Your task to perform on an android device: View the shopping cart on ebay. Add lenovo thinkpad to the cart on ebay, then select checkout. Image 0: 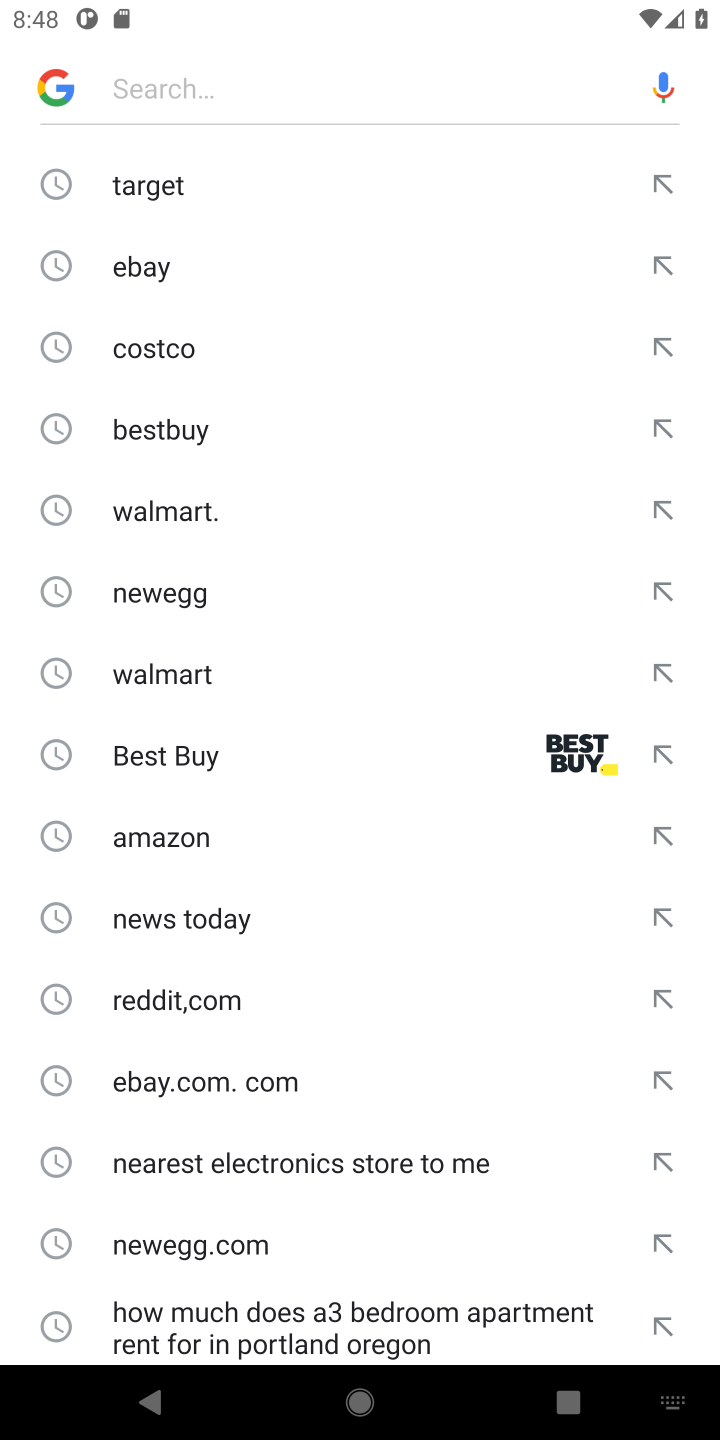
Step 0: press home button
Your task to perform on an android device: View the shopping cart on ebay. Add lenovo thinkpad to the cart on ebay, then select checkout. Image 1: 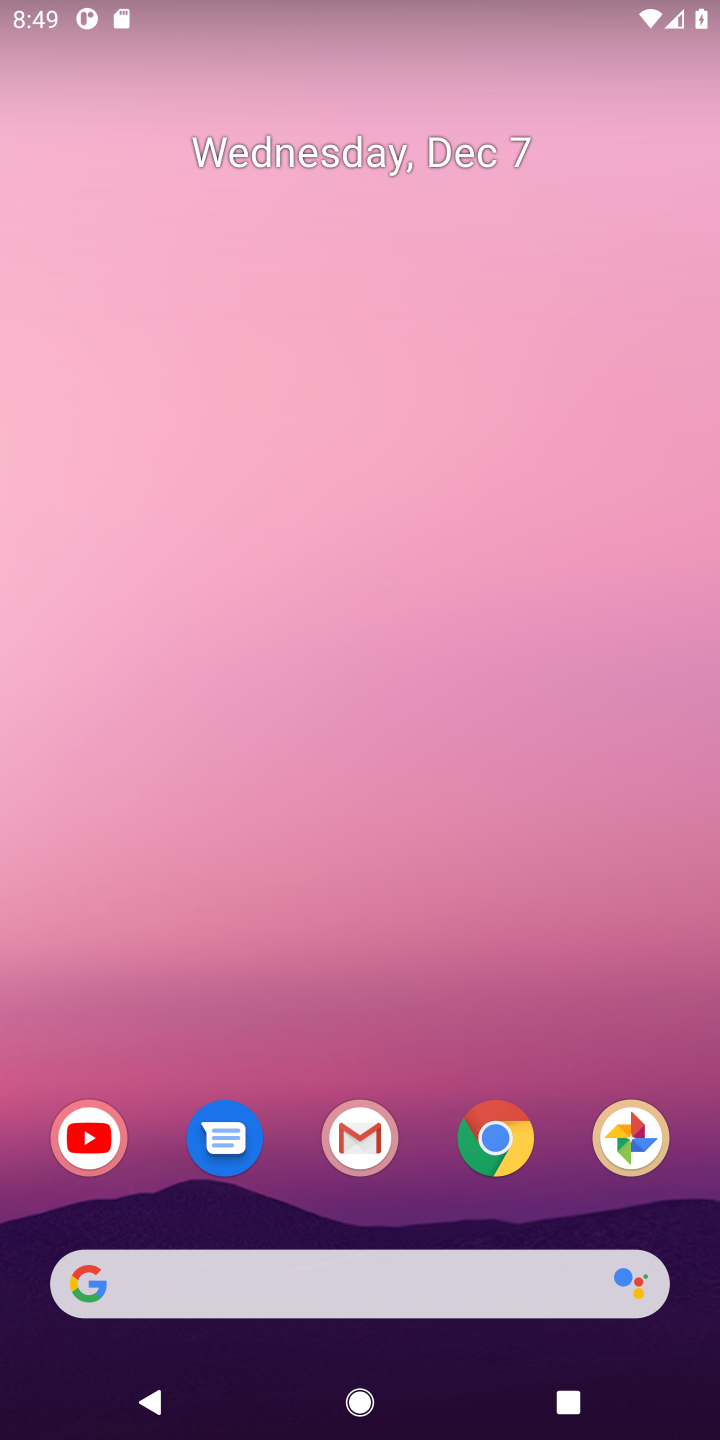
Step 1: click (133, 1291)
Your task to perform on an android device: View the shopping cart on ebay. Add lenovo thinkpad to the cart on ebay, then select checkout. Image 2: 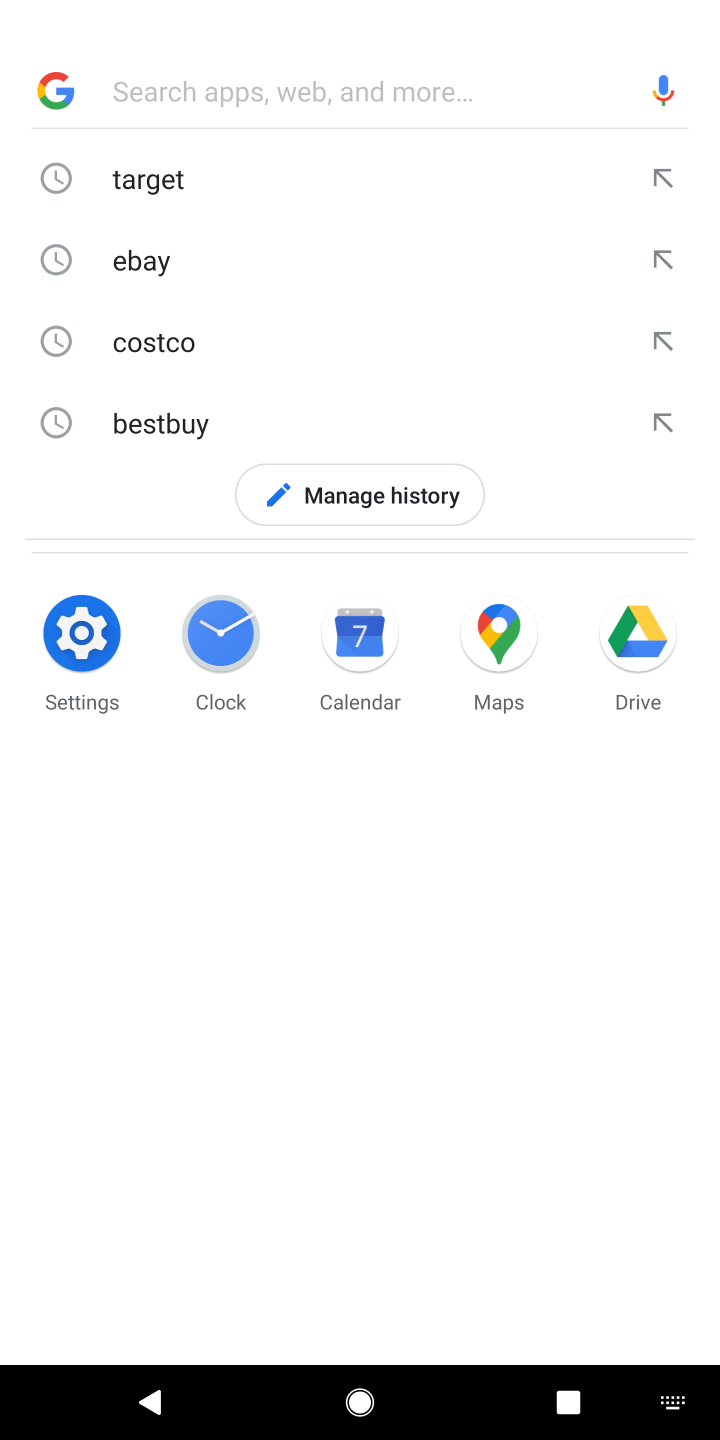
Step 2: press enter
Your task to perform on an android device: View the shopping cart on ebay. Add lenovo thinkpad to the cart on ebay, then select checkout. Image 3: 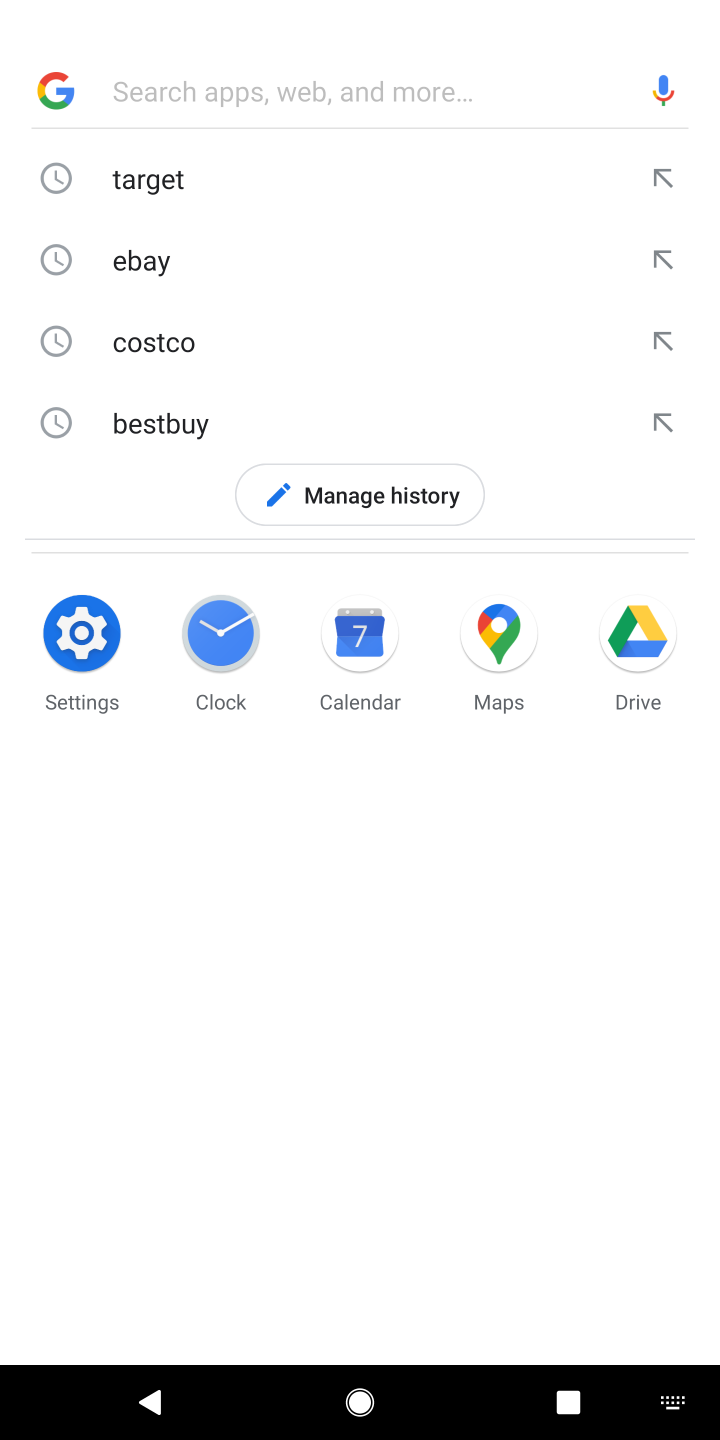
Step 3: type "ebay"
Your task to perform on an android device: View the shopping cart on ebay. Add lenovo thinkpad to the cart on ebay, then select checkout. Image 4: 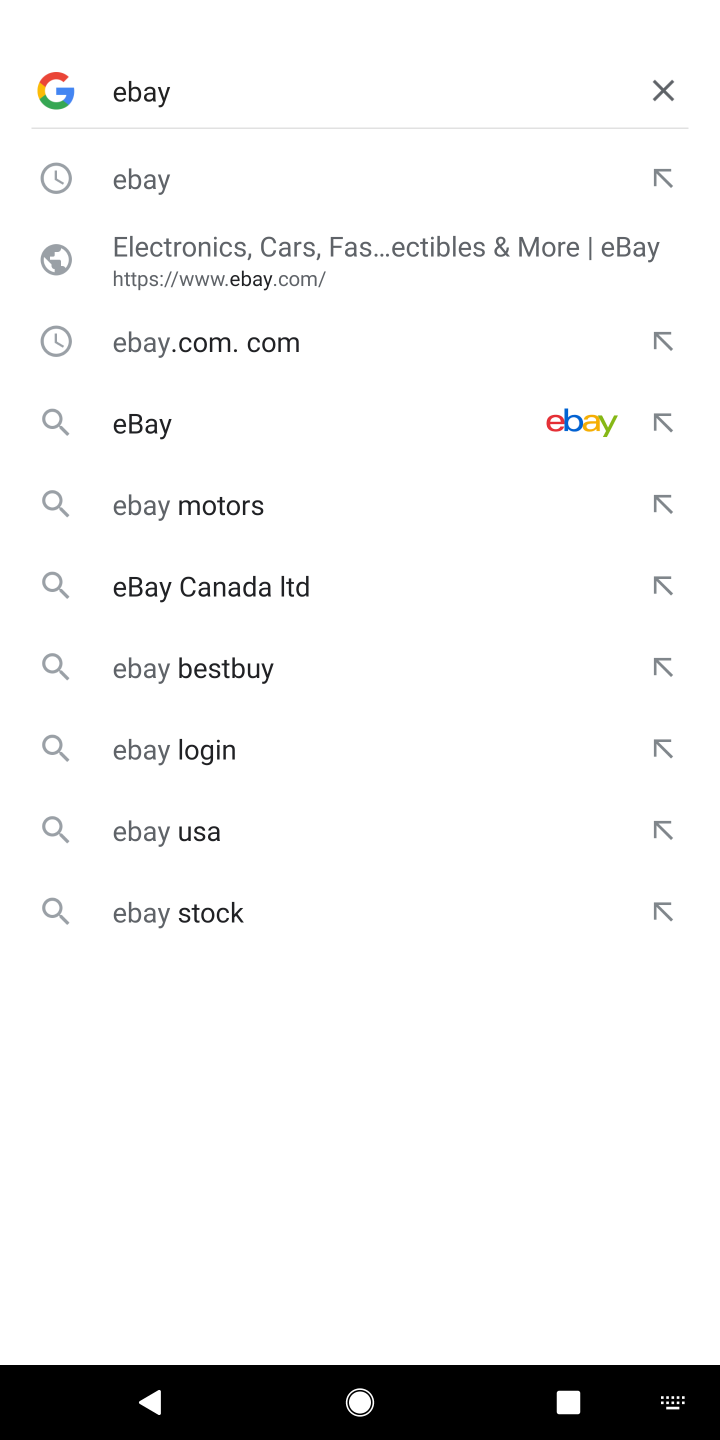
Step 4: press enter
Your task to perform on an android device: View the shopping cart on ebay. Add lenovo thinkpad to the cart on ebay, then select checkout. Image 5: 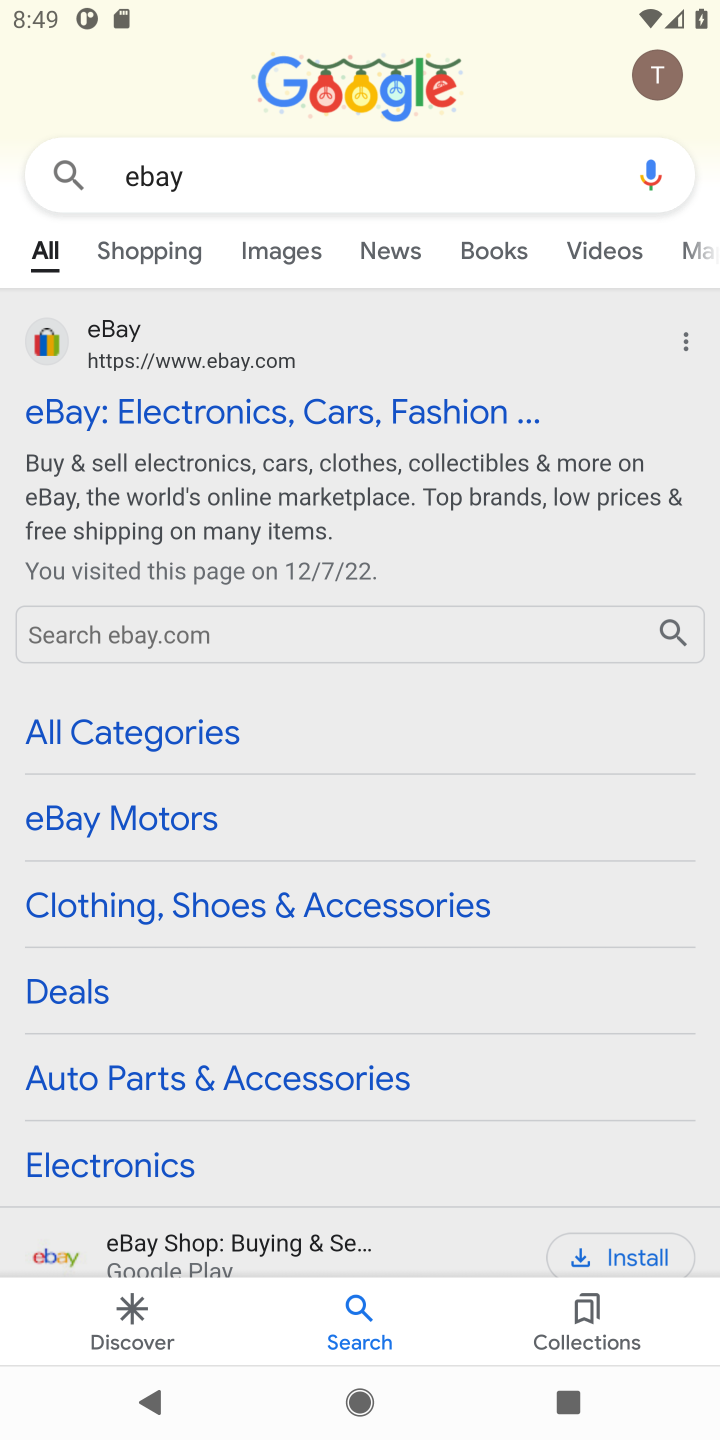
Step 5: click (341, 416)
Your task to perform on an android device: View the shopping cart on ebay. Add lenovo thinkpad to the cart on ebay, then select checkout. Image 6: 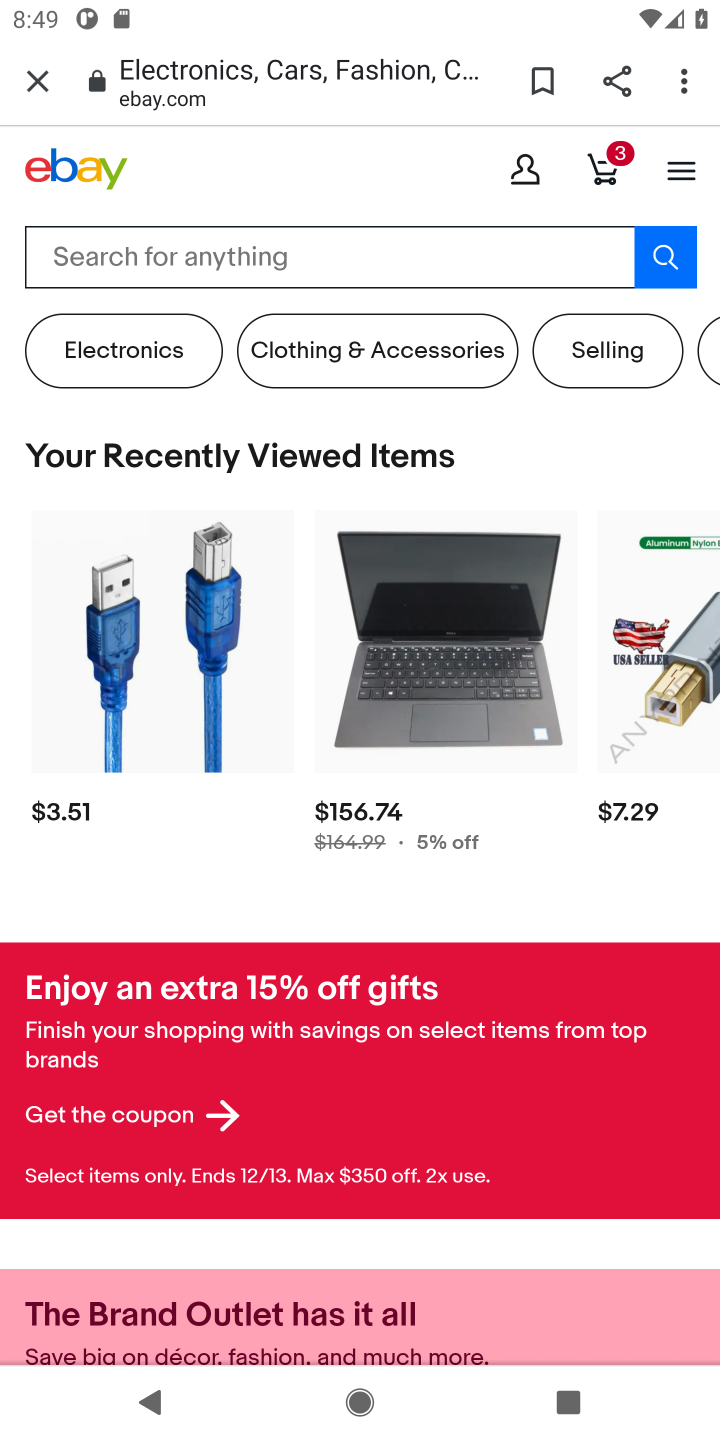
Step 6: click (597, 167)
Your task to perform on an android device: View the shopping cart on ebay. Add lenovo thinkpad to the cart on ebay, then select checkout. Image 7: 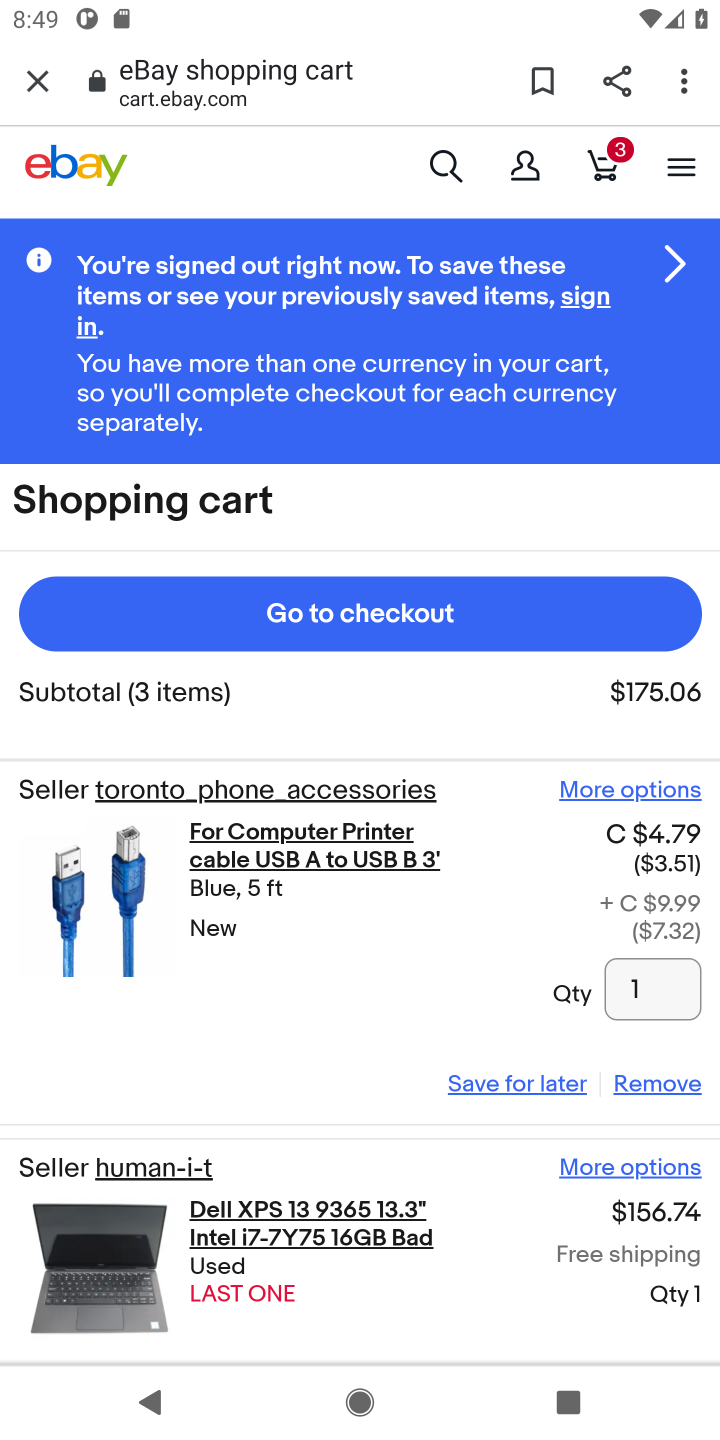
Step 7: click (442, 159)
Your task to perform on an android device: View the shopping cart on ebay. Add lenovo thinkpad to the cart on ebay, then select checkout. Image 8: 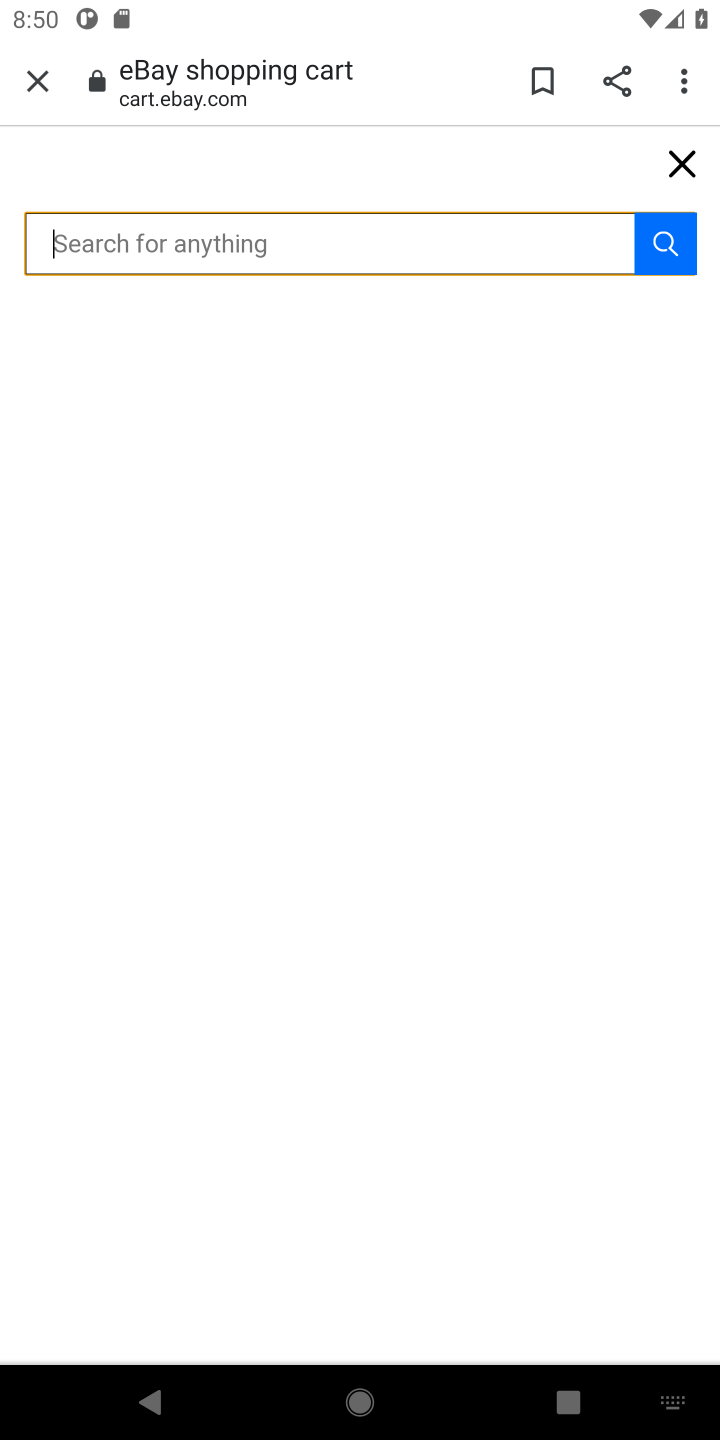
Step 8: type "lenovo thinkpad"
Your task to perform on an android device: View the shopping cart on ebay. Add lenovo thinkpad to the cart on ebay, then select checkout. Image 9: 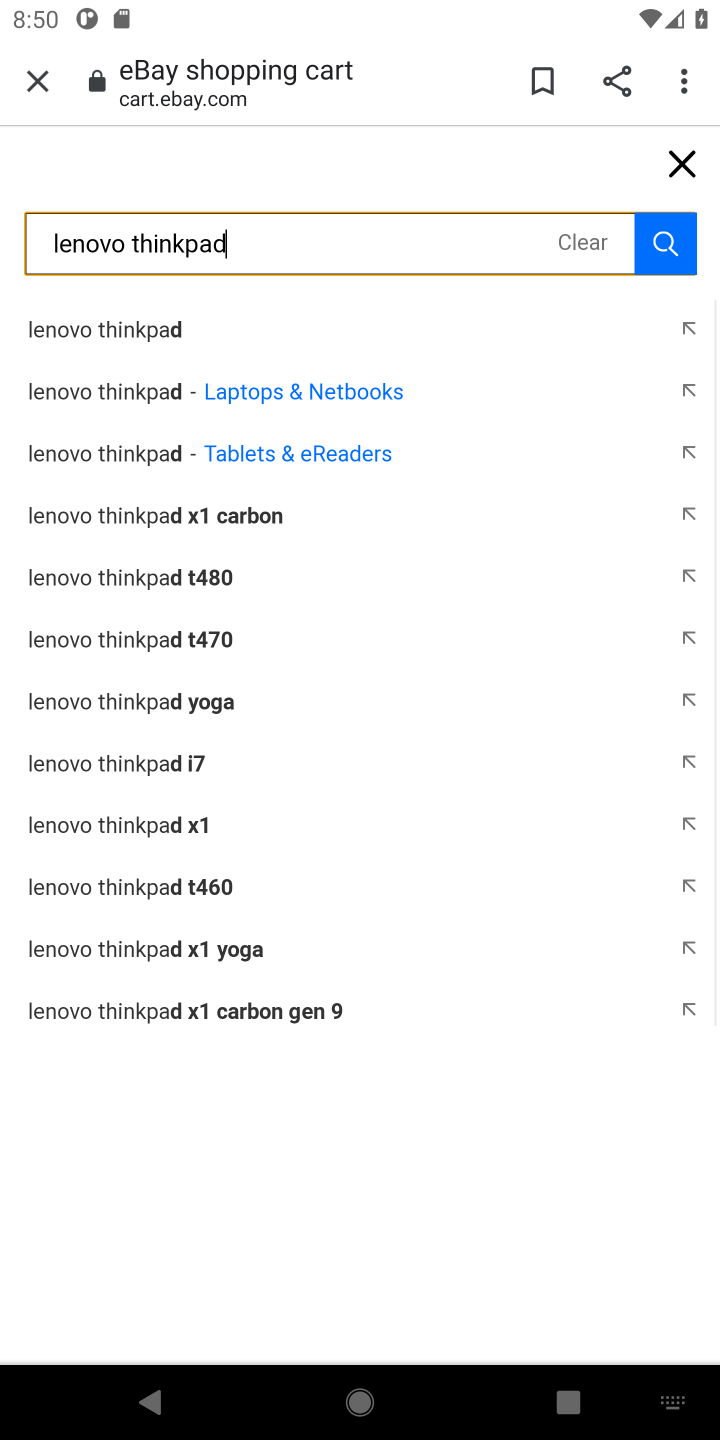
Step 9: press enter
Your task to perform on an android device: View the shopping cart on ebay. Add lenovo thinkpad to the cart on ebay, then select checkout. Image 10: 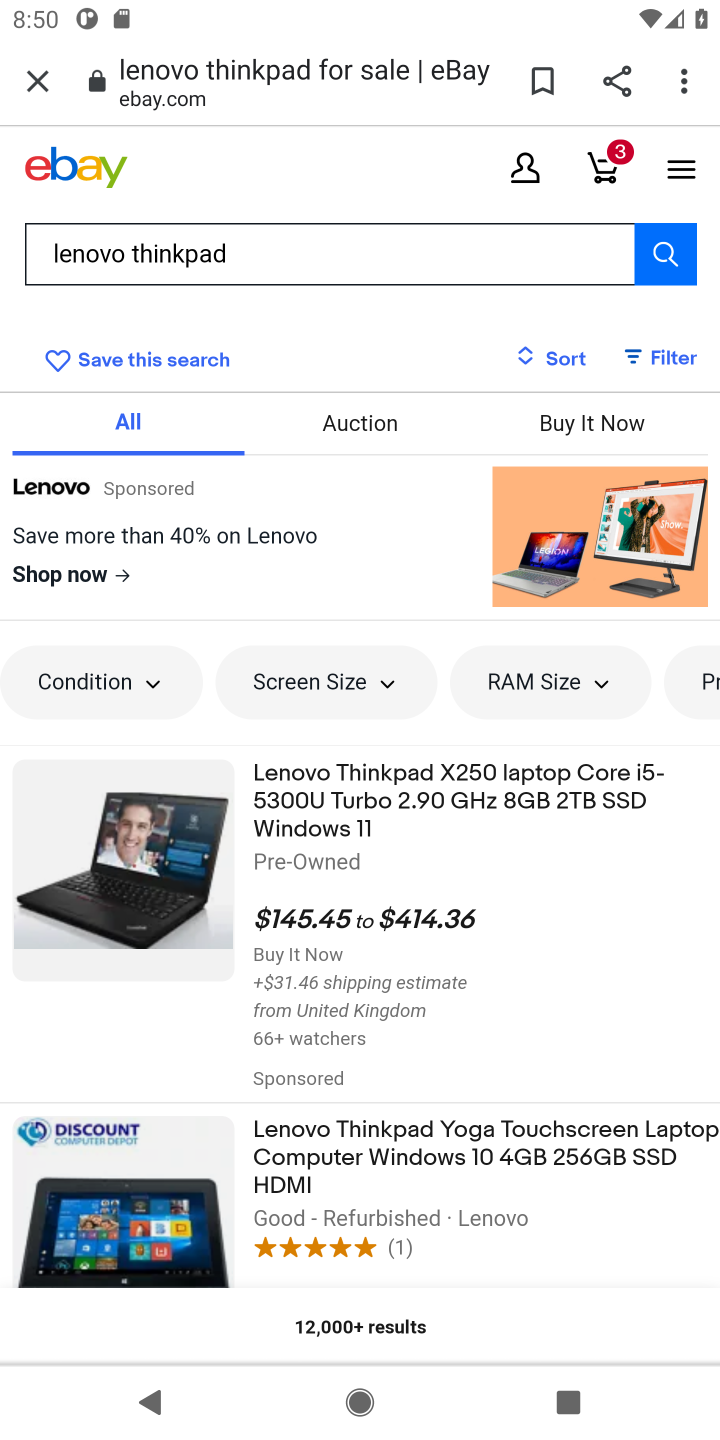
Step 10: click (412, 781)
Your task to perform on an android device: View the shopping cart on ebay. Add lenovo thinkpad to the cart on ebay, then select checkout. Image 11: 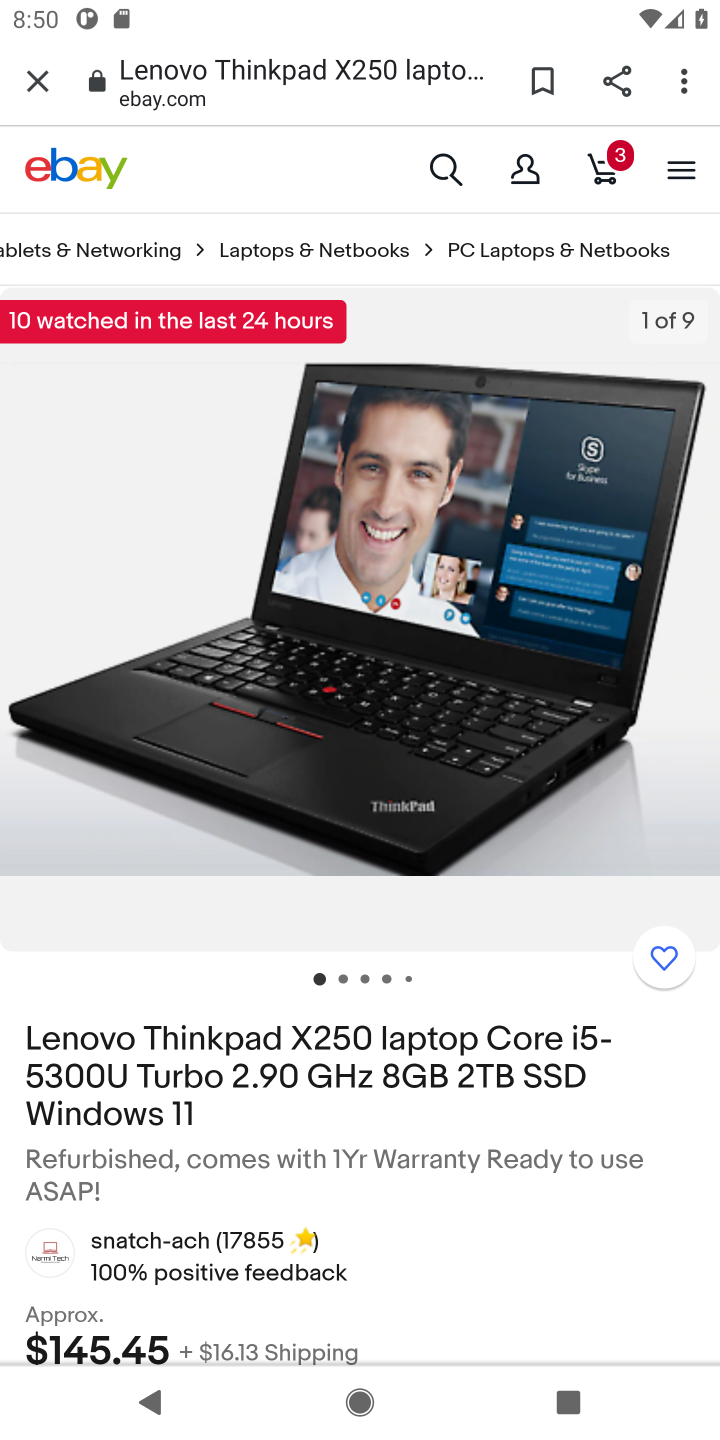
Step 11: drag from (453, 1161) to (453, 479)
Your task to perform on an android device: View the shopping cart on ebay. Add lenovo thinkpad to the cart on ebay, then select checkout. Image 12: 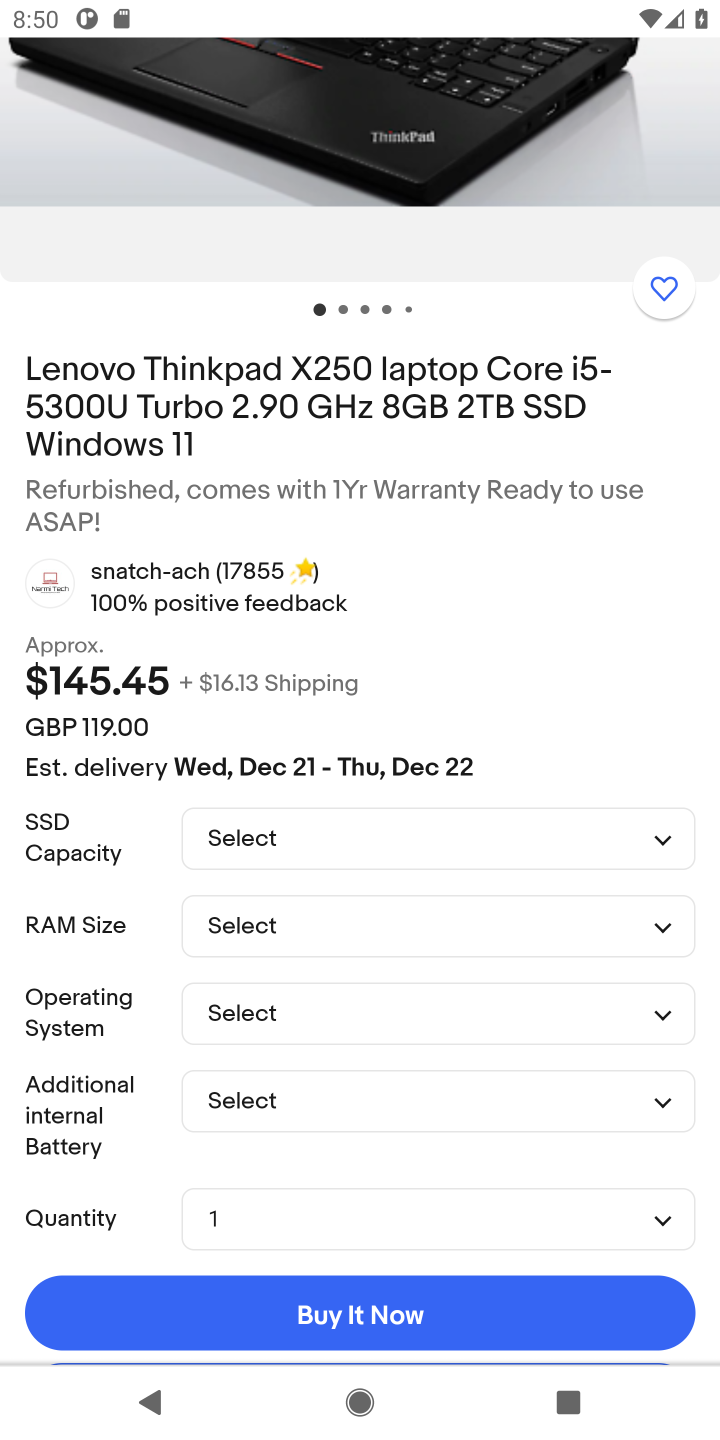
Step 12: drag from (402, 924) to (461, 374)
Your task to perform on an android device: View the shopping cart on ebay. Add lenovo thinkpad to the cart on ebay, then select checkout. Image 13: 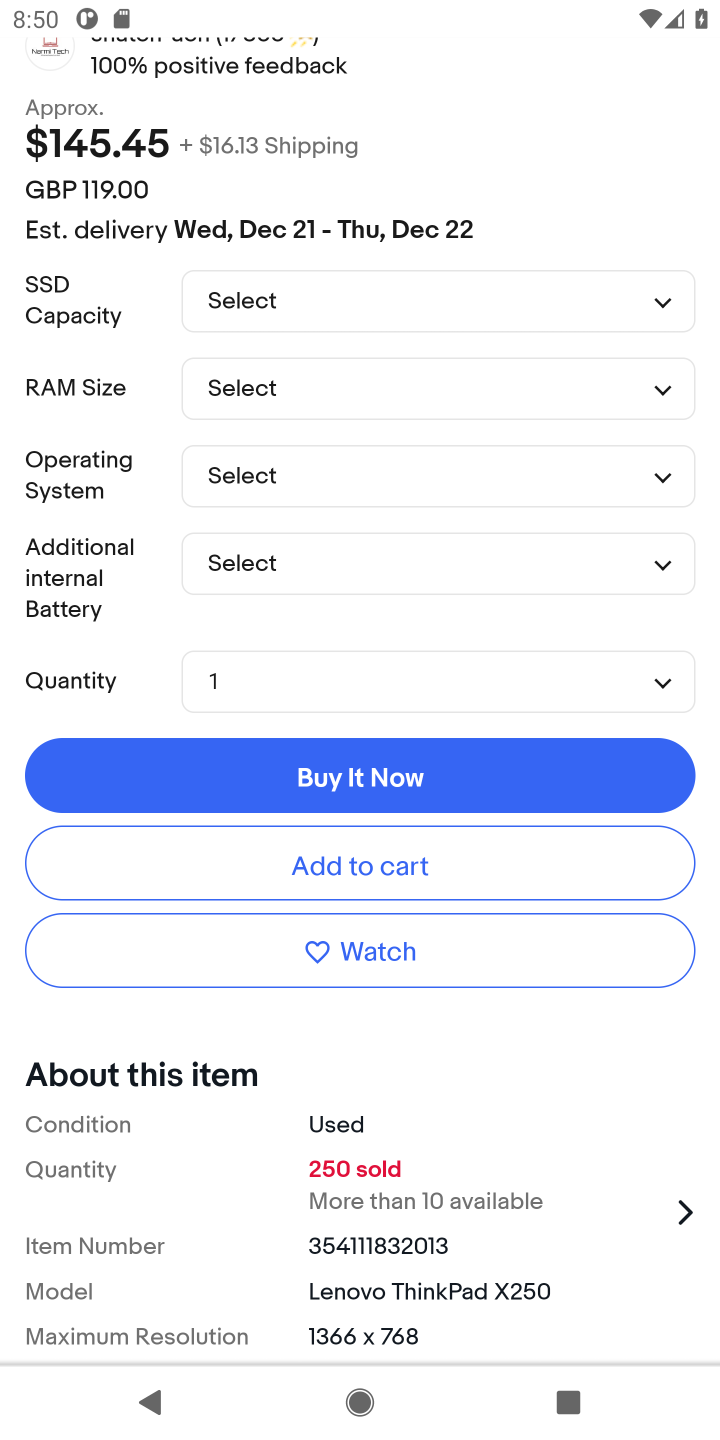
Step 13: click (375, 859)
Your task to perform on an android device: View the shopping cart on ebay. Add lenovo thinkpad to the cart on ebay, then select checkout. Image 14: 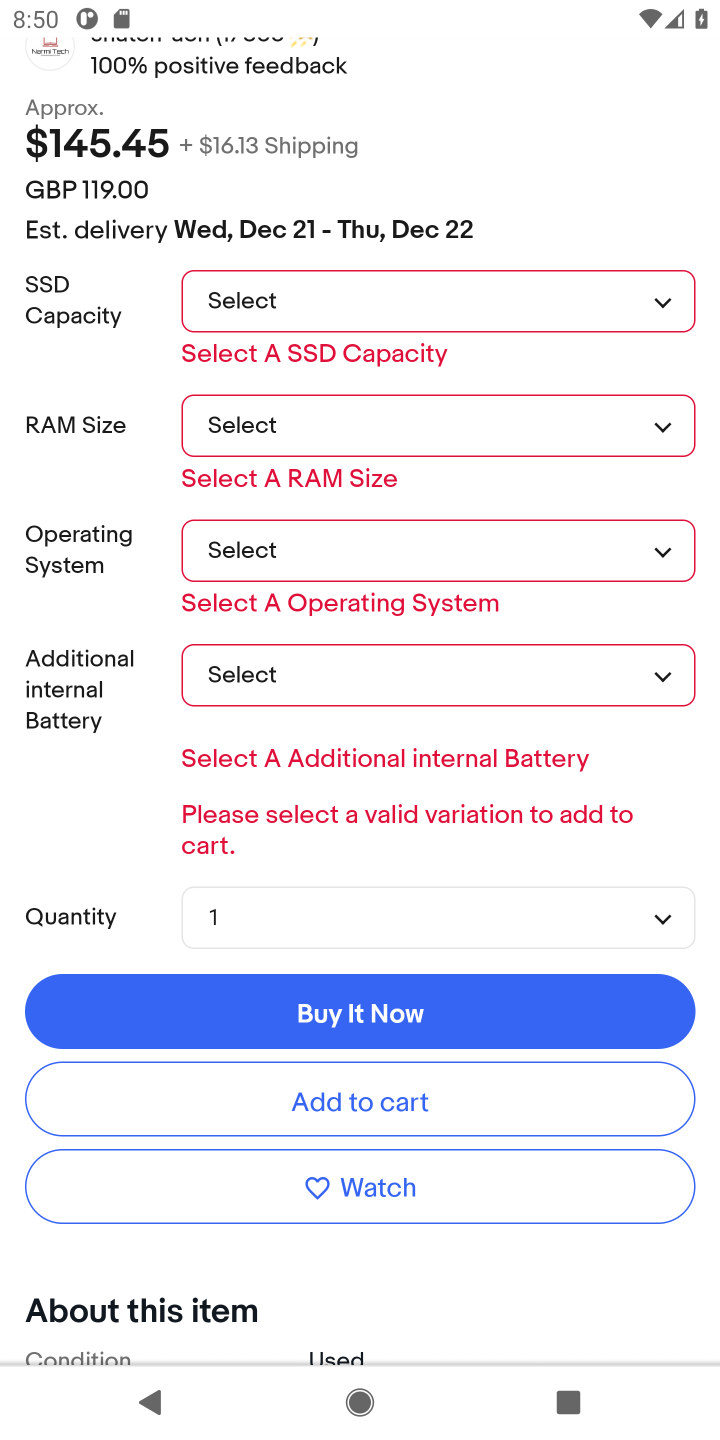
Step 14: click (665, 291)
Your task to perform on an android device: View the shopping cart on ebay. Add lenovo thinkpad to the cart on ebay, then select checkout. Image 15: 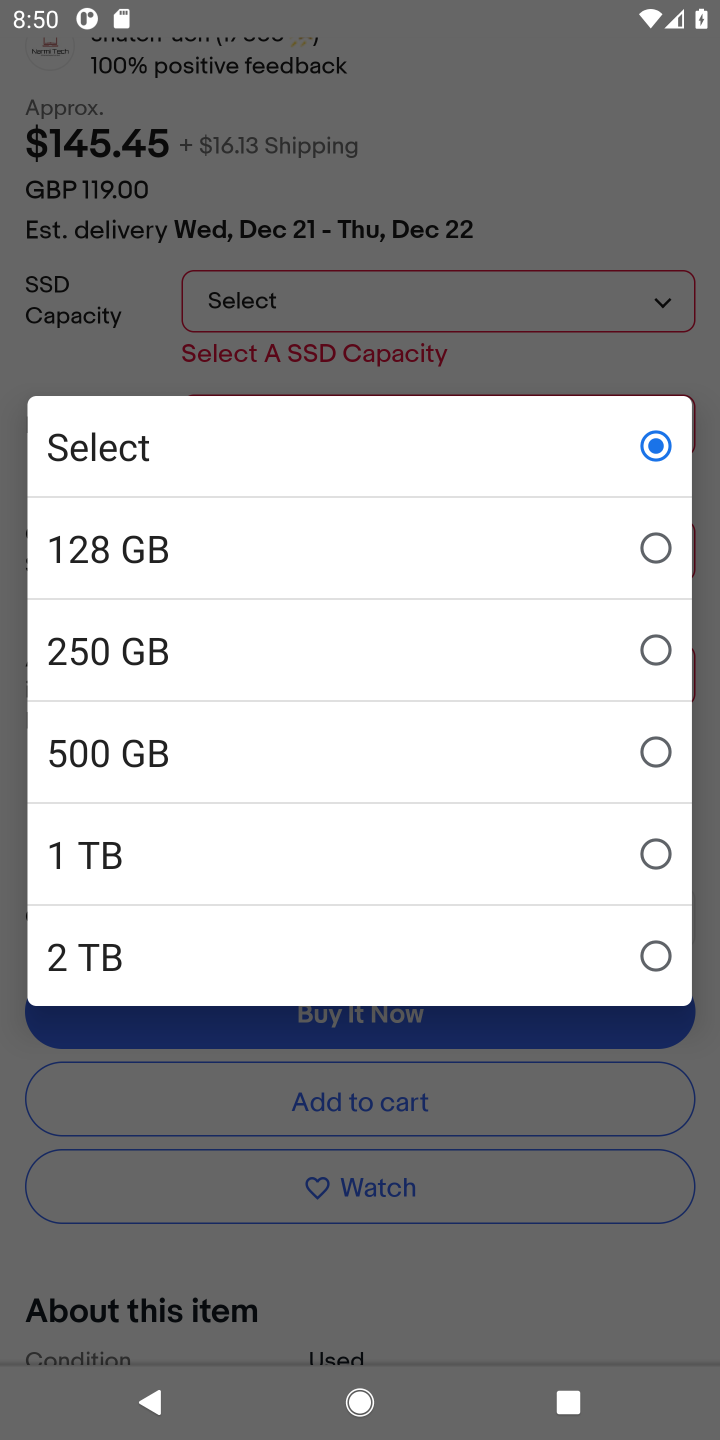
Step 15: click (664, 546)
Your task to perform on an android device: View the shopping cart on ebay. Add lenovo thinkpad to the cart on ebay, then select checkout. Image 16: 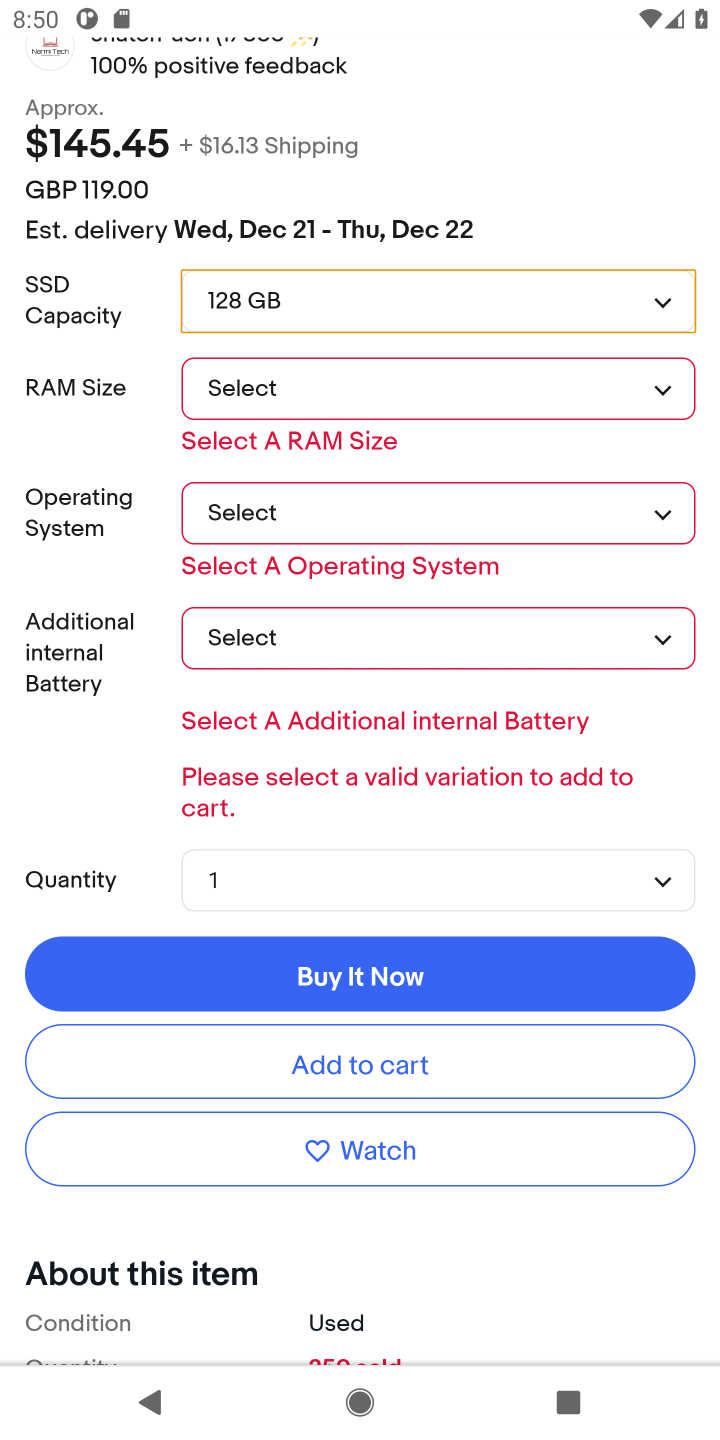
Step 16: click (662, 377)
Your task to perform on an android device: View the shopping cart on ebay. Add lenovo thinkpad to the cart on ebay, then select checkout. Image 17: 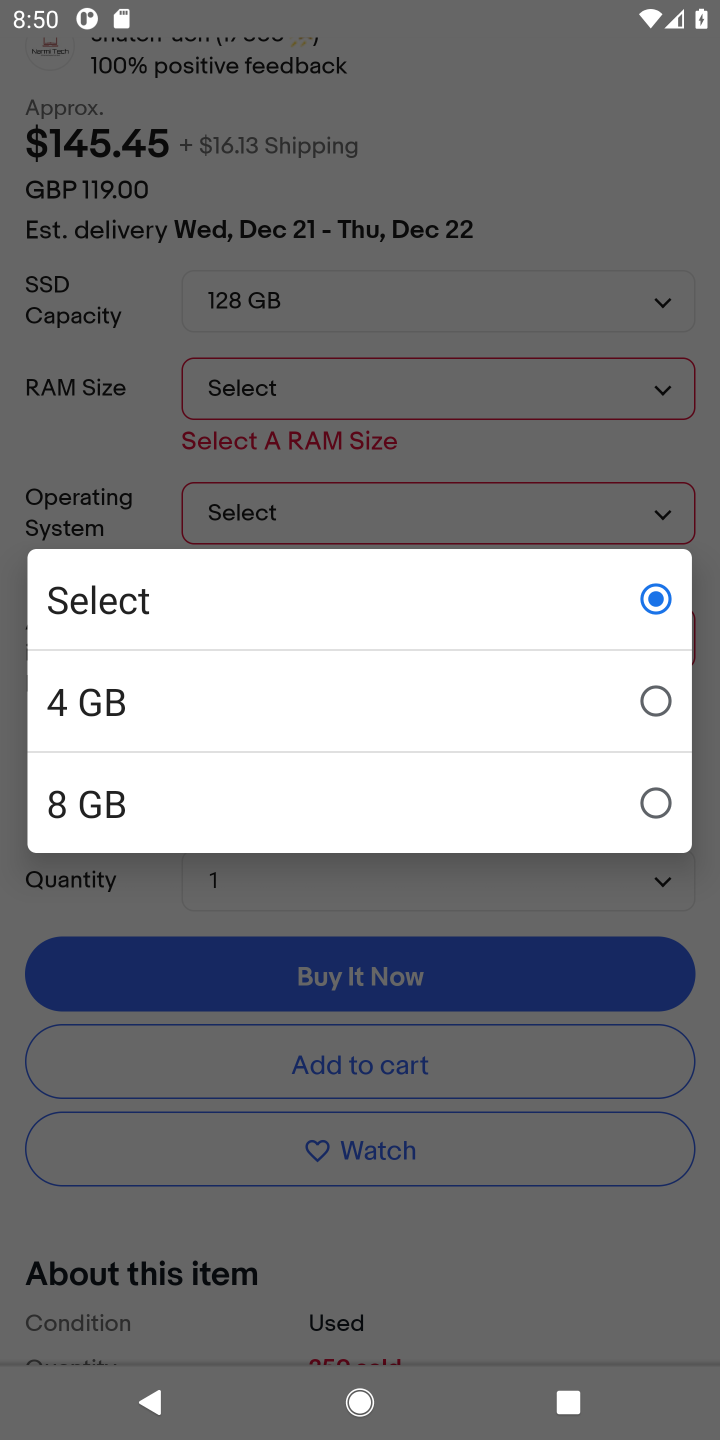
Step 17: click (660, 695)
Your task to perform on an android device: View the shopping cart on ebay. Add lenovo thinkpad to the cart on ebay, then select checkout. Image 18: 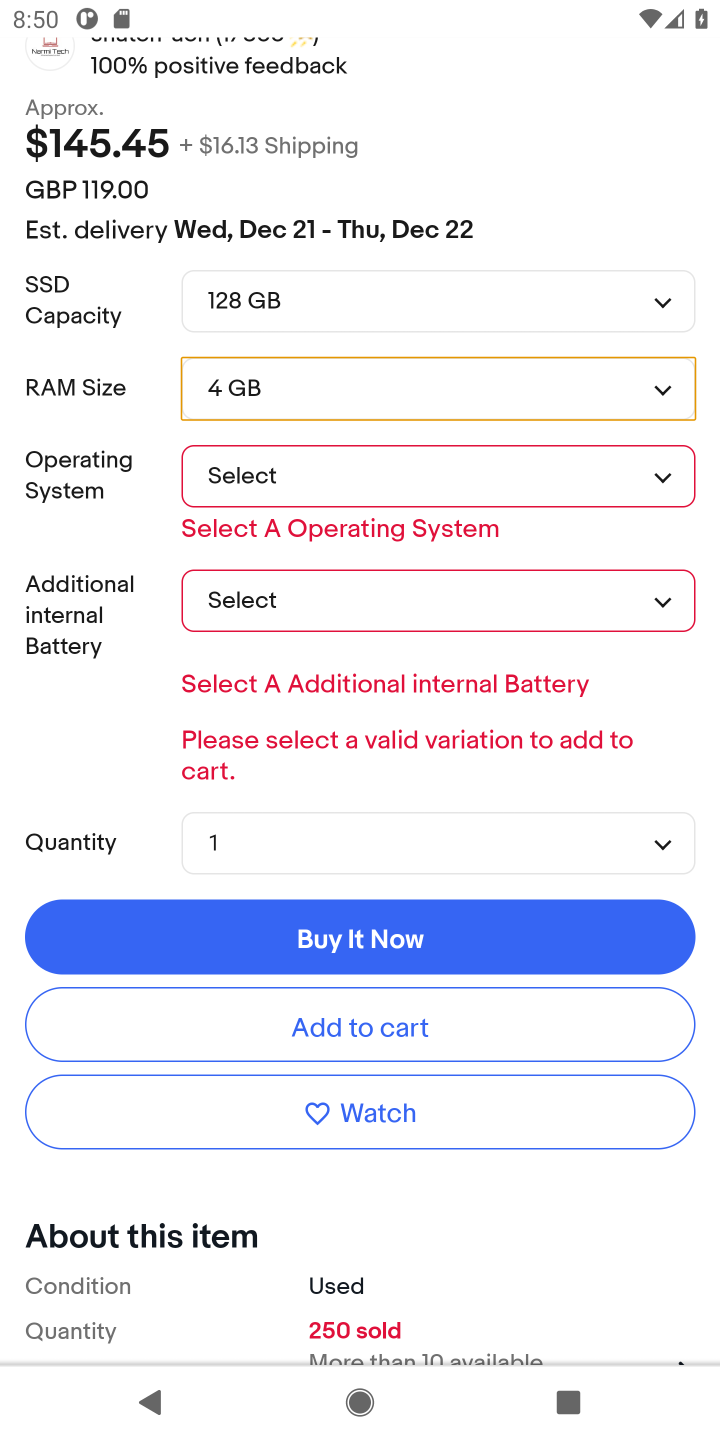
Step 18: click (666, 474)
Your task to perform on an android device: View the shopping cart on ebay. Add lenovo thinkpad to the cart on ebay, then select checkout. Image 19: 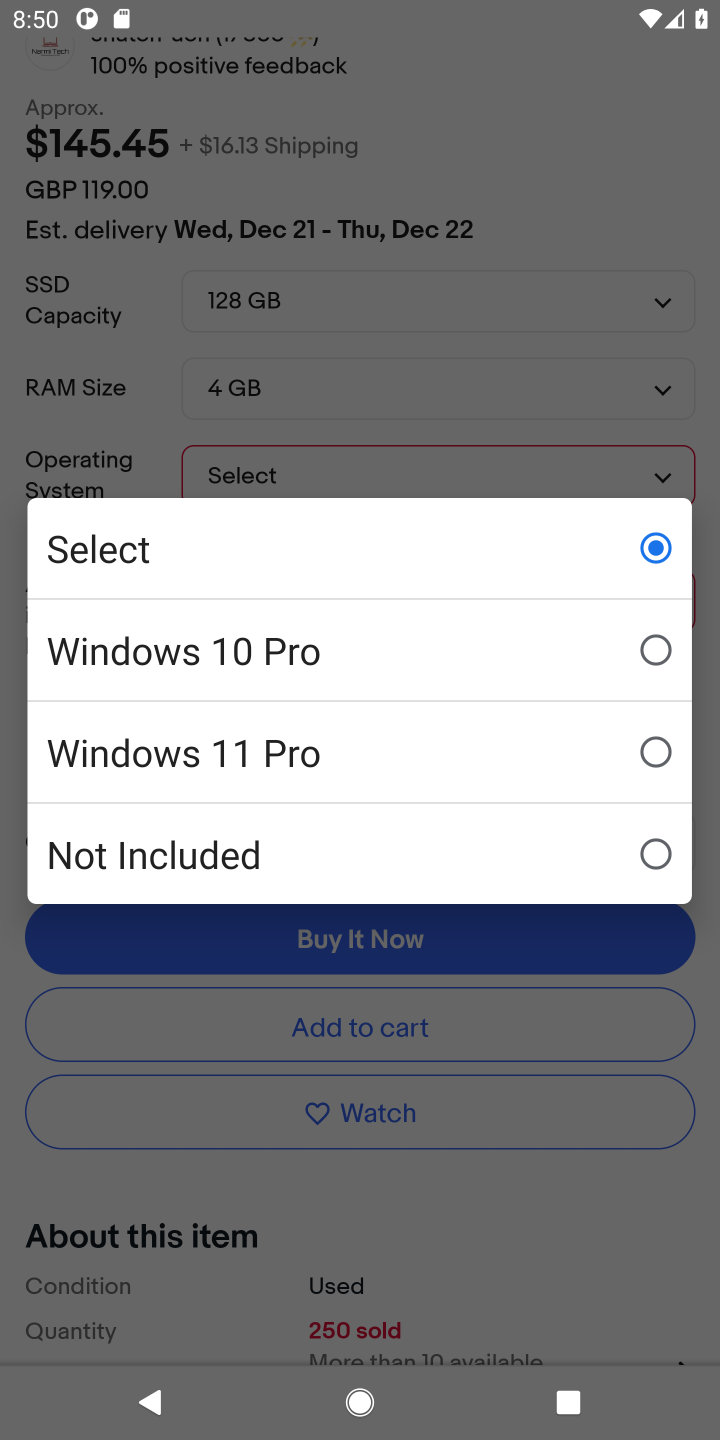
Step 19: click (644, 748)
Your task to perform on an android device: View the shopping cart on ebay. Add lenovo thinkpad to the cart on ebay, then select checkout. Image 20: 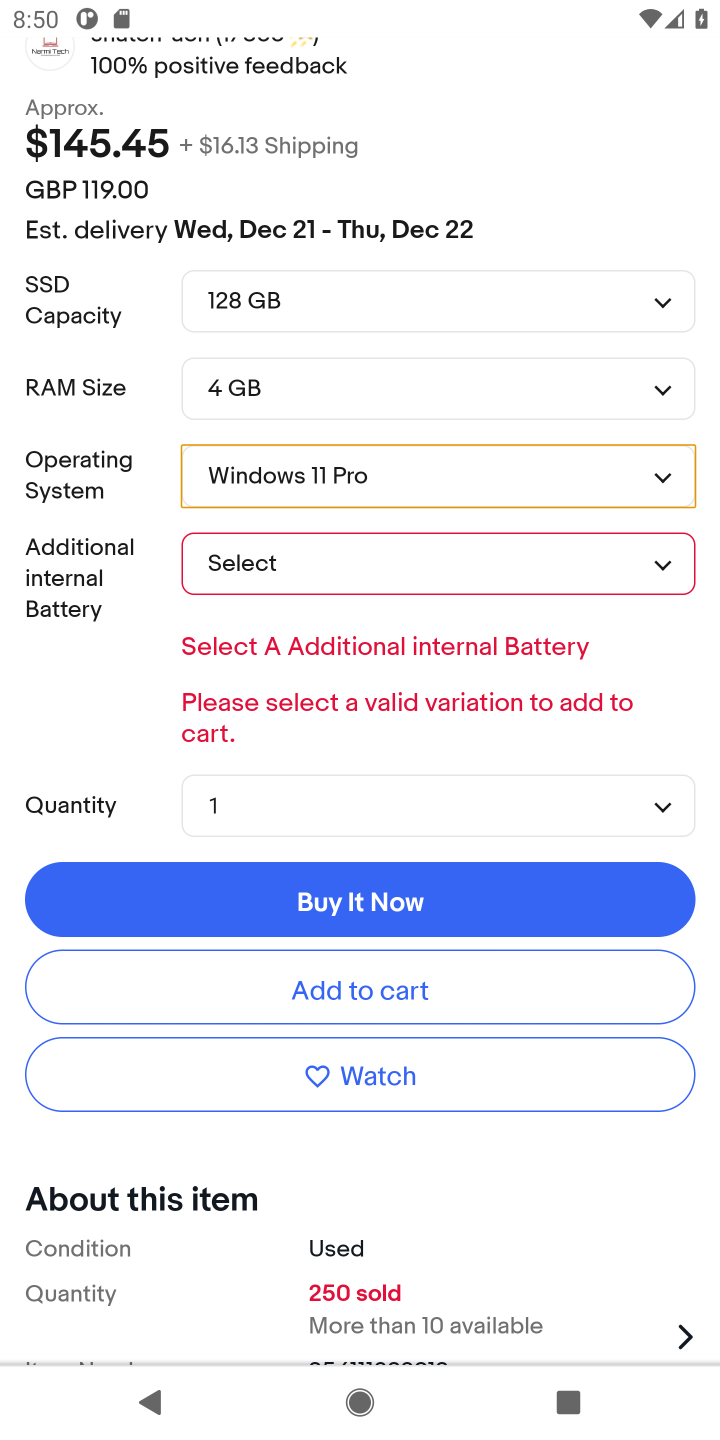
Step 20: click (663, 566)
Your task to perform on an android device: View the shopping cart on ebay. Add lenovo thinkpad to the cart on ebay, then select checkout. Image 21: 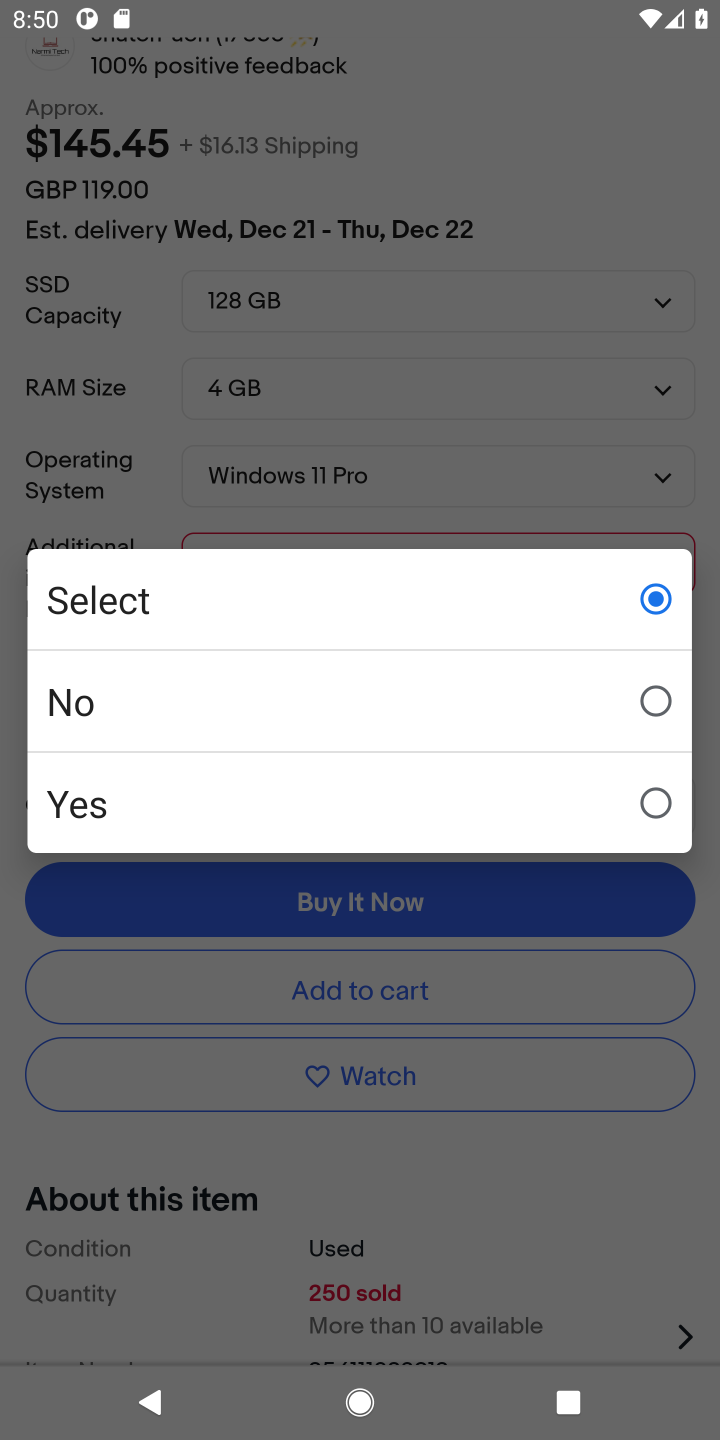
Step 21: click (344, 803)
Your task to perform on an android device: View the shopping cart on ebay. Add lenovo thinkpad to the cart on ebay, then select checkout. Image 22: 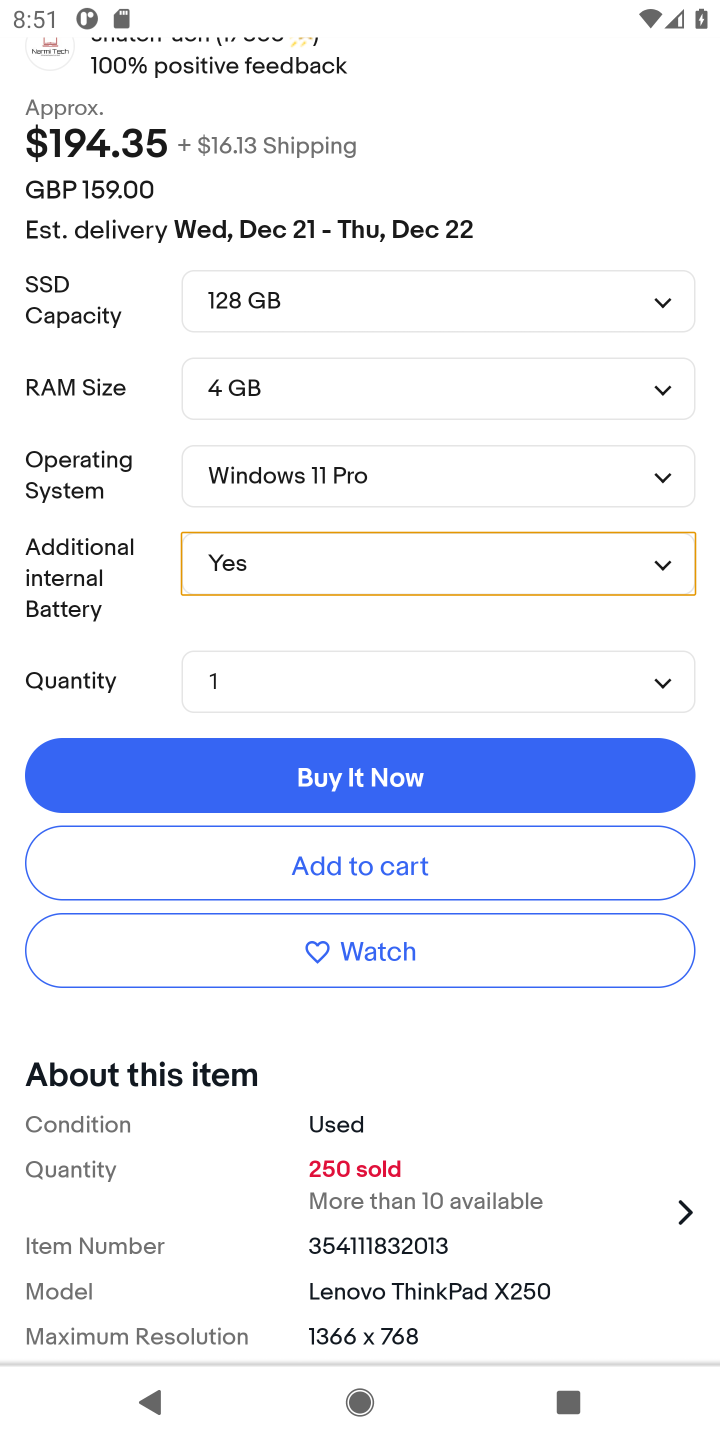
Step 22: click (459, 868)
Your task to perform on an android device: View the shopping cart on ebay. Add lenovo thinkpad to the cart on ebay, then select checkout. Image 23: 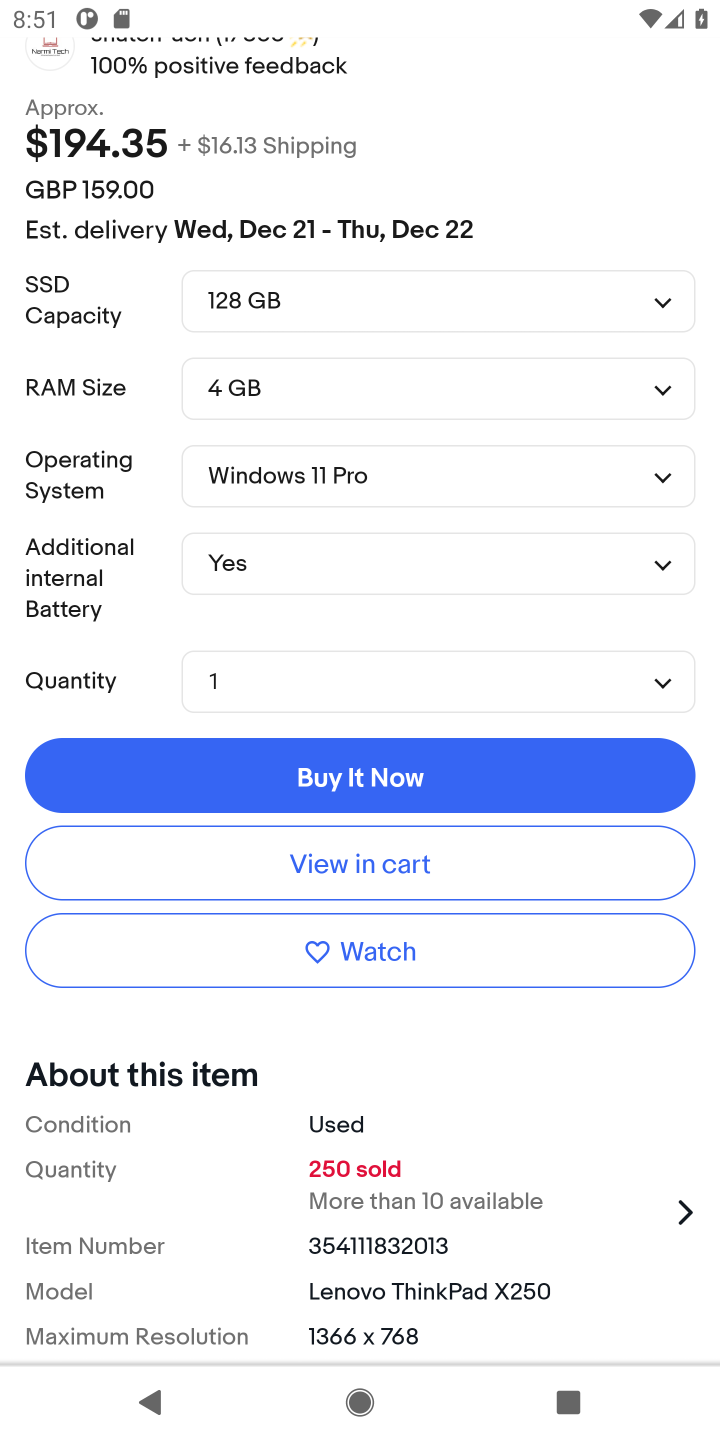
Step 23: click (368, 868)
Your task to perform on an android device: View the shopping cart on ebay. Add lenovo thinkpad to the cart on ebay, then select checkout. Image 24: 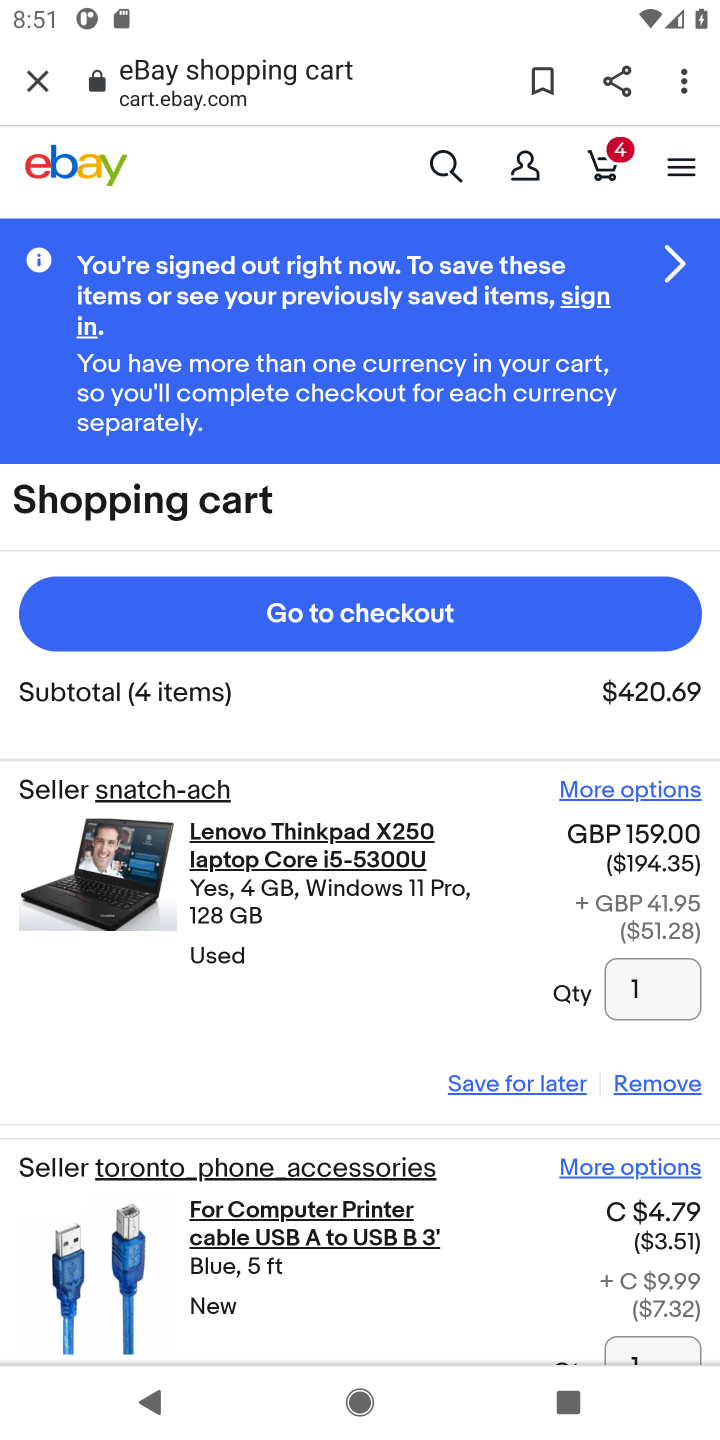
Step 24: click (388, 616)
Your task to perform on an android device: View the shopping cart on ebay. Add lenovo thinkpad to the cart on ebay, then select checkout. Image 25: 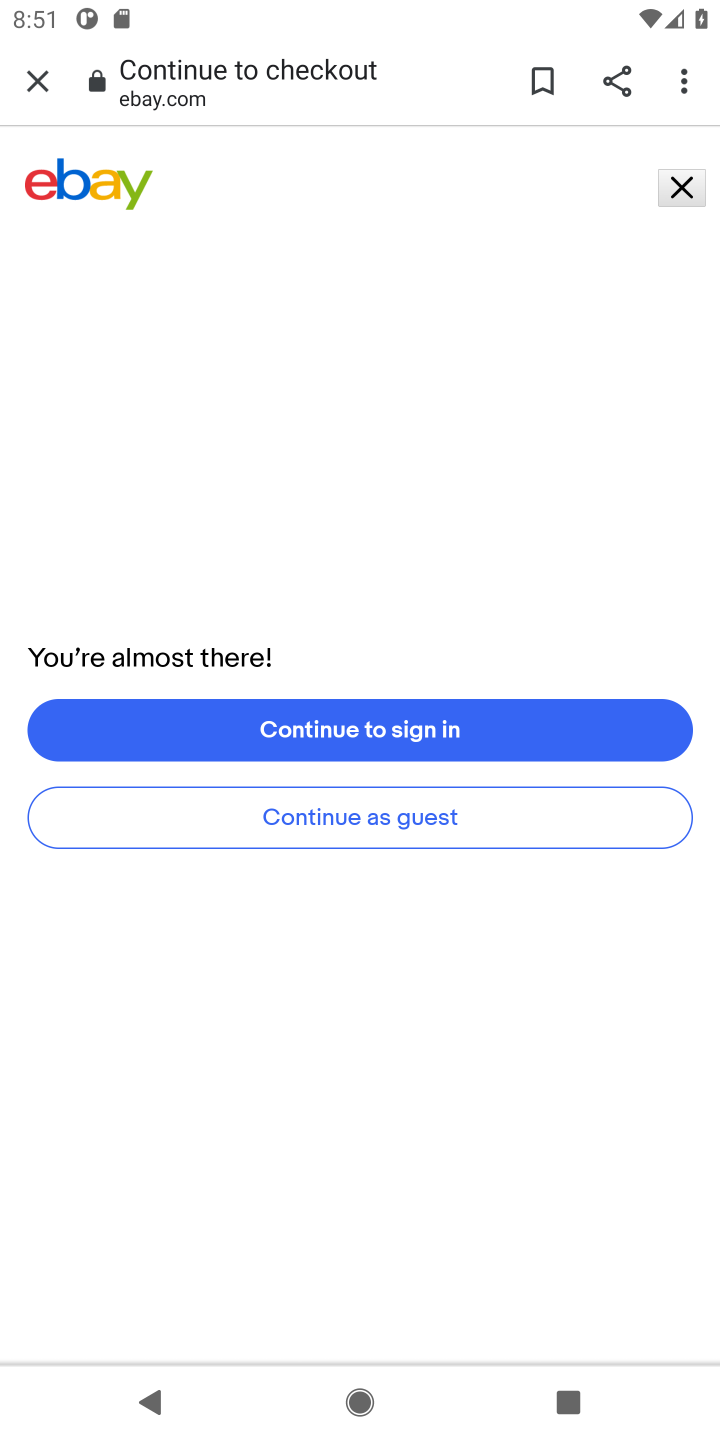
Step 25: task complete